Your task to perform on an android device: Play the last video I watched on Youtube Image 0: 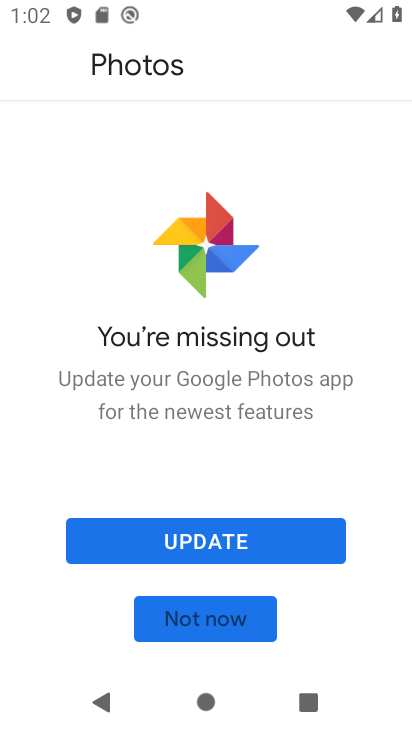
Step 0: press home button
Your task to perform on an android device: Play the last video I watched on Youtube Image 1: 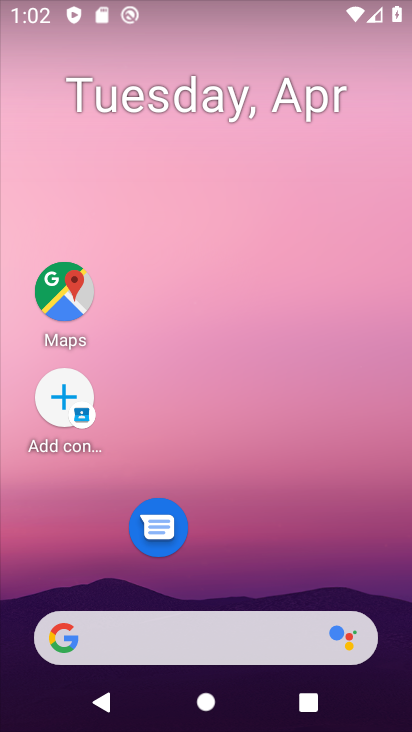
Step 1: drag from (252, 591) to (290, 39)
Your task to perform on an android device: Play the last video I watched on Youtube Image 2: 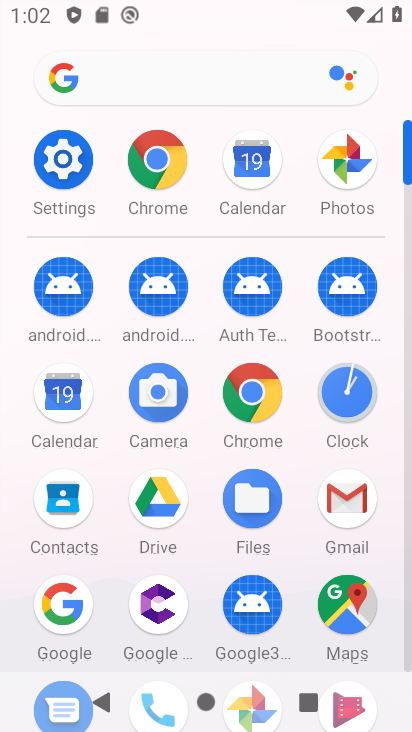
Step 2: drag from (202, 535) to (220, 261)
Your task to perform on an android device: Play the last video I watched on Youtube Image 3: 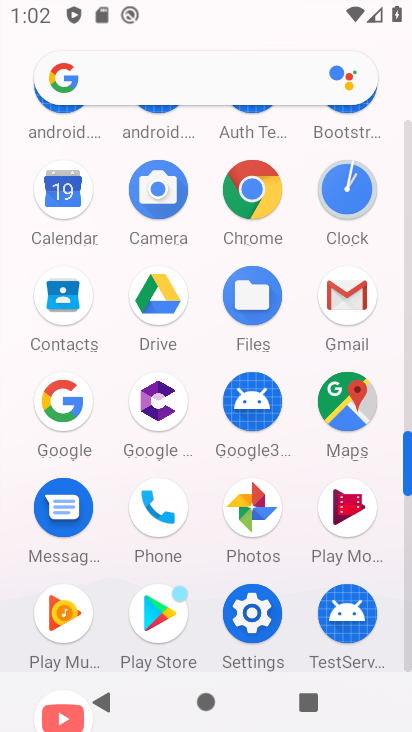
Step 3: drag from (201, 529) to (205, 303)
Your task to perform on an android device: Play the last video I watched on Youtube Image 4: 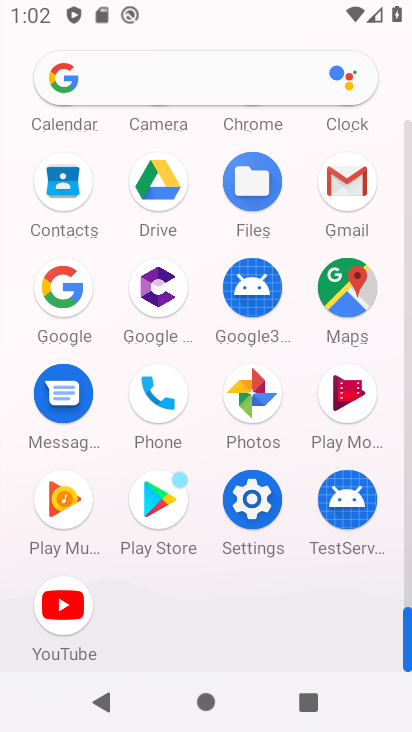
Step 4: click (72, 605)
Your task to perform on an android device: Play the last video I watched on Youtube Image 5: 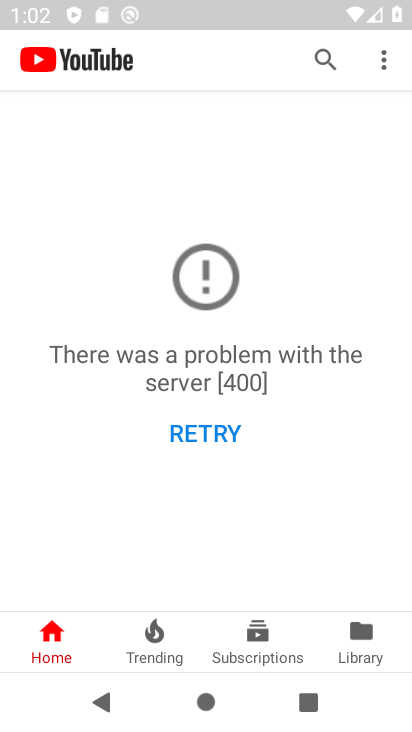
Step 5: click (370, 639)
Your task to perform on an android device: Play the last video I watched on Youtube Image 6: 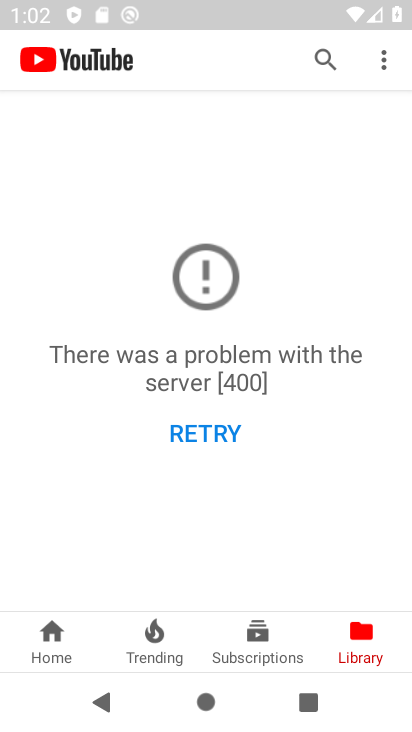
Step 6: click (201, 428)
Your task to perform on an android device: Play the last video I watched on Youtube Image 7: 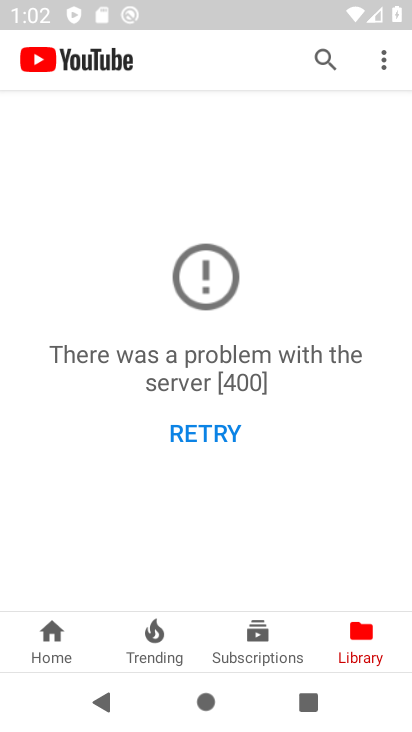
Step 7: click (201, 428)
Your task to perform on an android device: Play the last video I watched on Youtube Image 8: 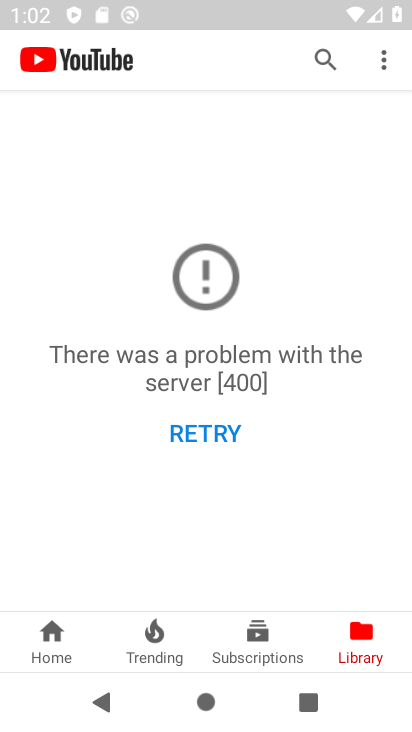
Step 8: click (201, 428)
Your task to perform on an android device: Play the last video I watched on Youtube Image 9: 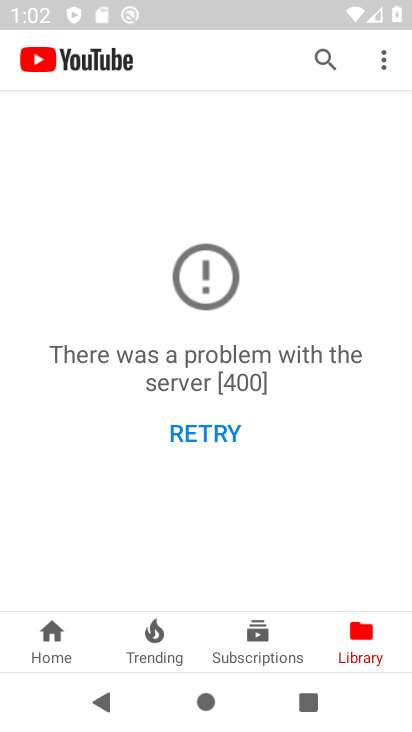
Step 9: click (46, 632)
Your task to perform on an android device: Play the last video I watched on Youtube Image 10: 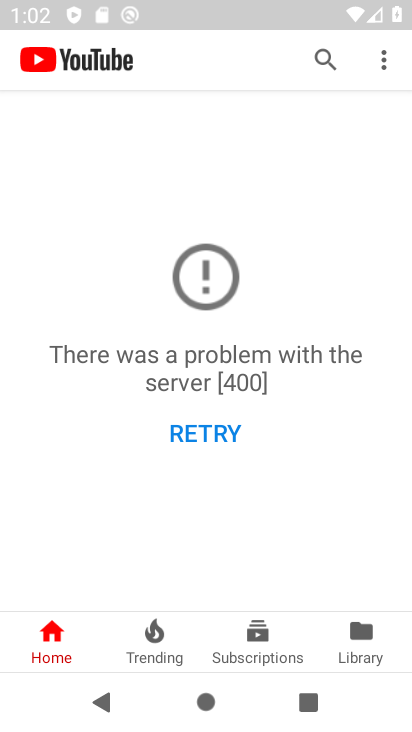
Step 10: click (158, 636)
Your task to perform on an android device: Play the last video I watched on Youtube Image 11: 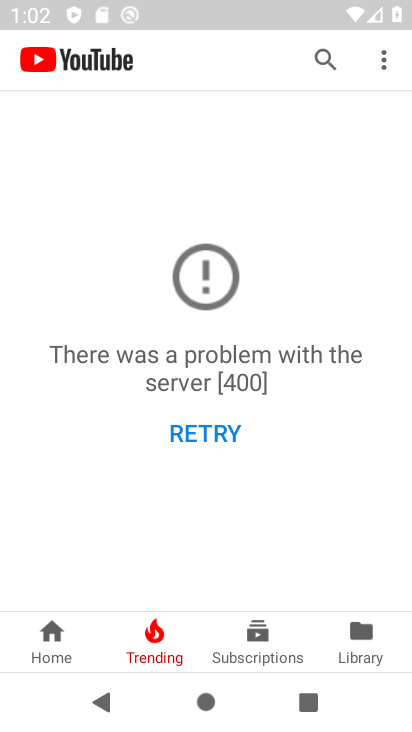
Step 11: click (380, 73)
Your task to perform on an android device: Play the last video I watched on Youtube Image 12: 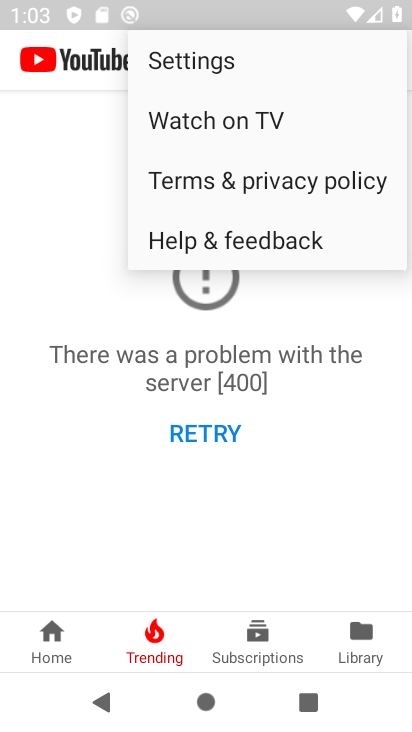
Step 12: click (327, 424)
Your task to perform on an android device: Play the last video I watched on Youtube Image 13: 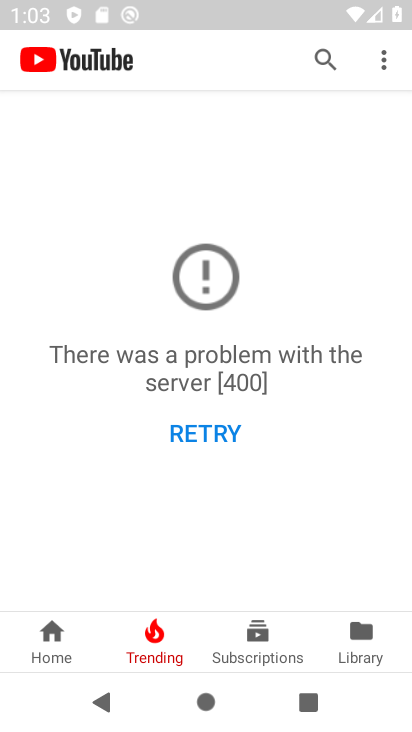
Step 13: click (375, 642)
Your task to perform on an android device: Play the last video I watched on Youtube Image 14: 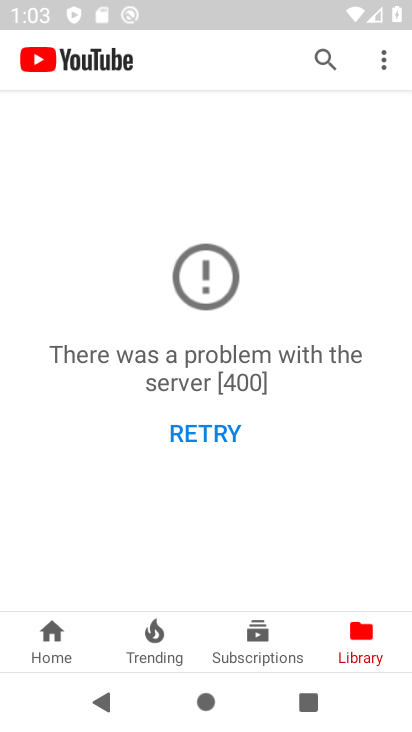
Step 14: click (279, 639)
Your task to perform on an android device: Play the last video I watched on Youtube Image 15: 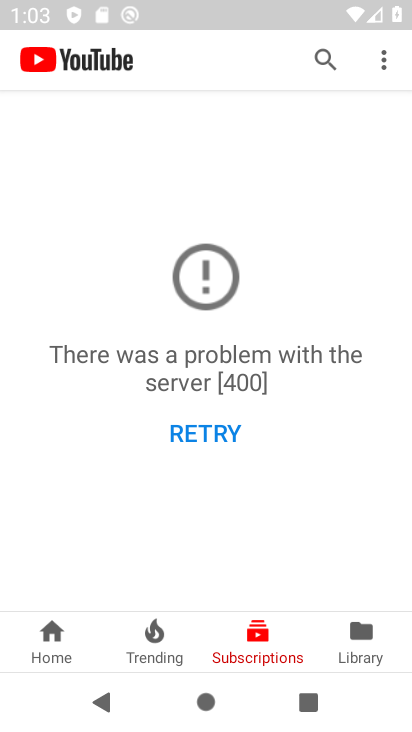
Step 15: click (391, 65)
Your task to perform on an android device: Play the last video I watched on Youtube Image 16: 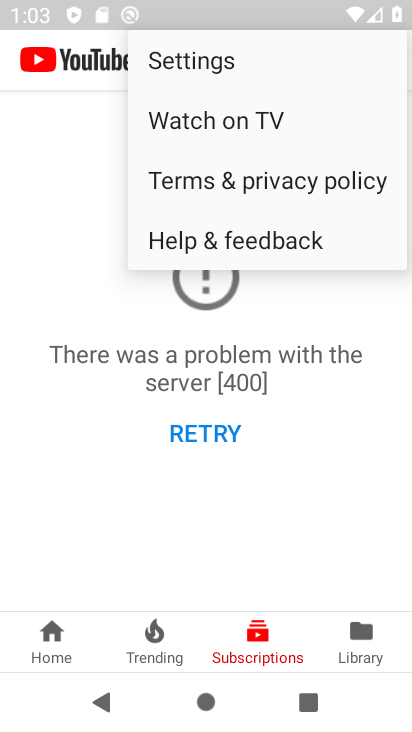
Step 16: click (216, 81)
Your task to perform on an android device: Play the last video I watched on Youtube Image 17: 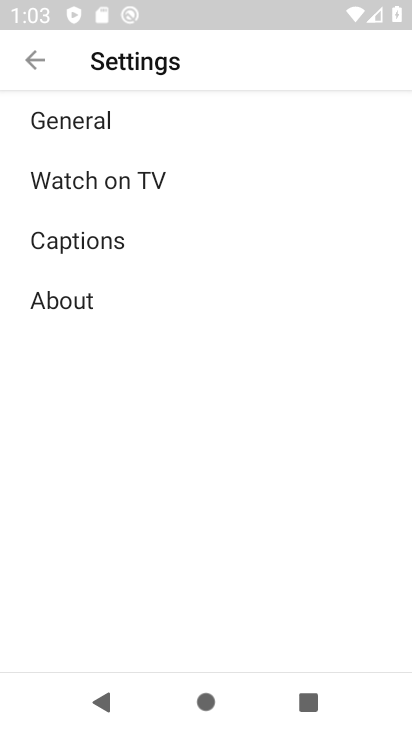
Step 17: click (72, 112)
Your task to perform on an android device: Play the last video I watched on Youtube Image 18: 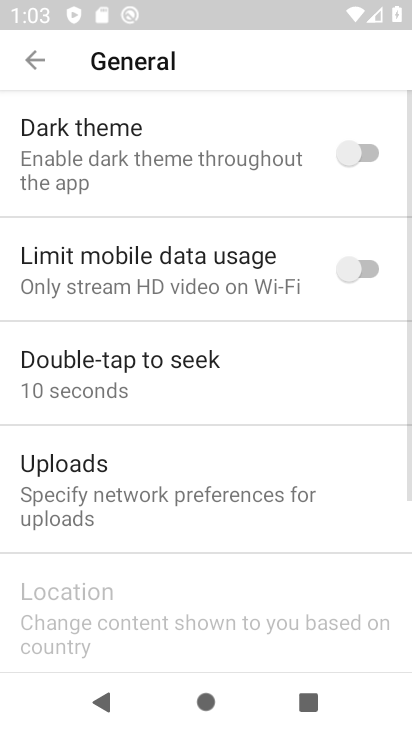
Step 18: task complete